Your task to perform on an android device: refresh tabs in the chrome app Image 0: 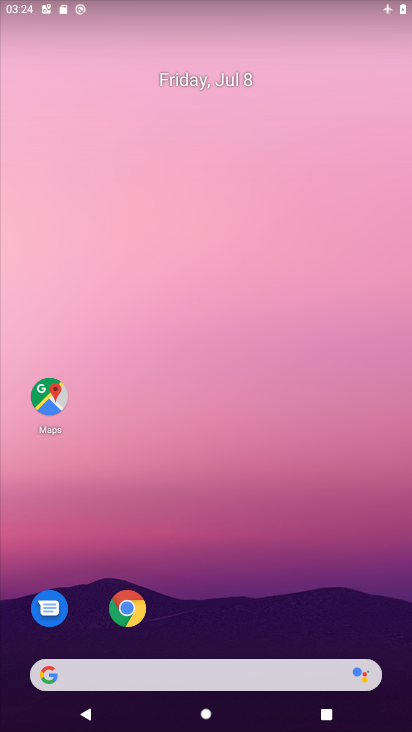
Step 0: drag from (267, 551) to (237, 184)
Your task to perform on an android device: refresh tabs in the chrome app Image 1: 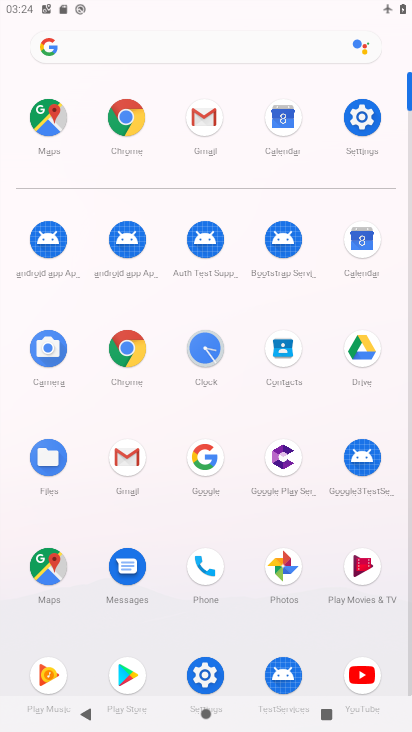
Step 1: click (127, 122)
Your task to perform on an android device: refresh tabs in the chrome app Image 2: 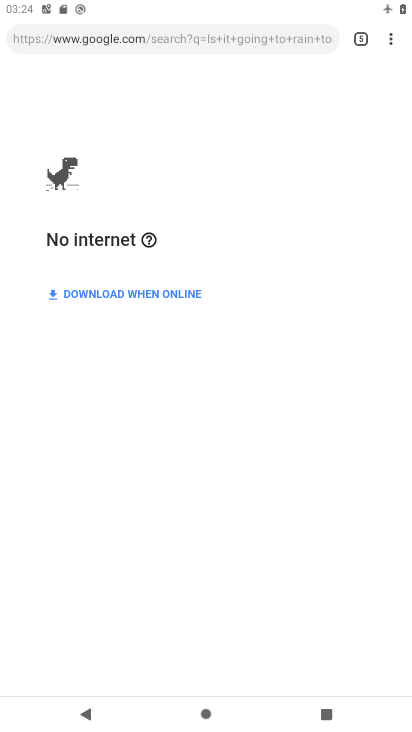
Step 2: click (381, 34)
Your task to perform on an android device: refresh tabs in the chrome app Image 3: 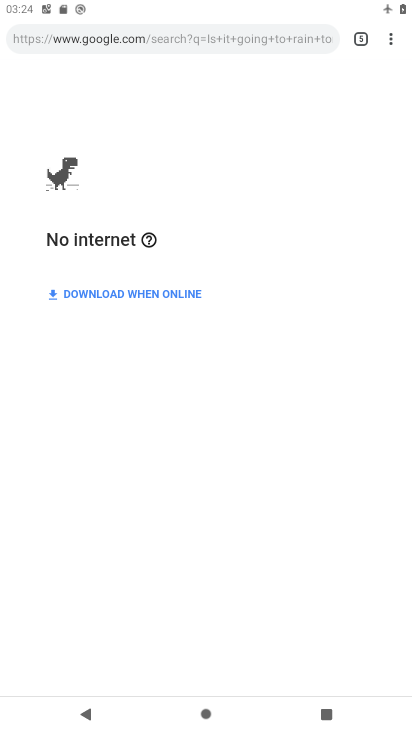
Step 3: click (397, 34)
Your task to perform on an android device: refresh tabs in the chrome app Image 4: 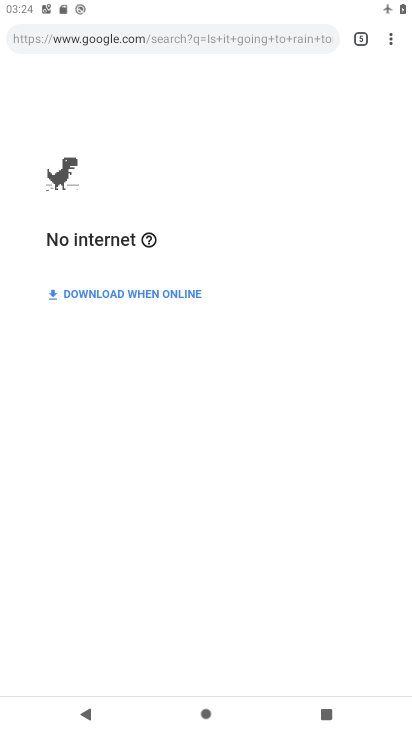
Step 4: click (389, 33)
Your task to perform on an android device: refresh tabs in the chrome app Image 5: 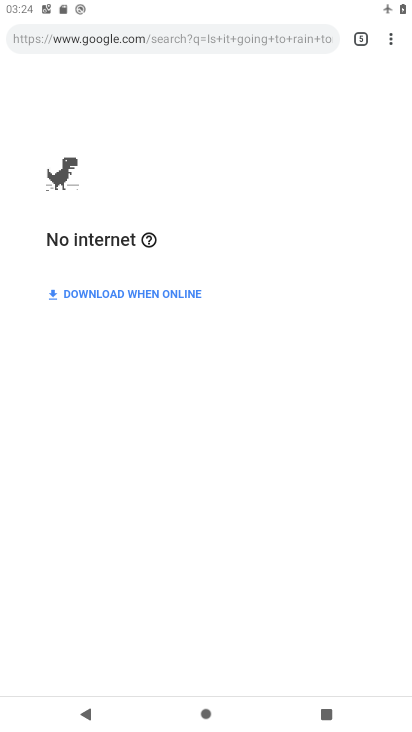
Step 5: click (379, 32)
Your task to perform on an android device: refresh tabs in the chrome app Image 6: 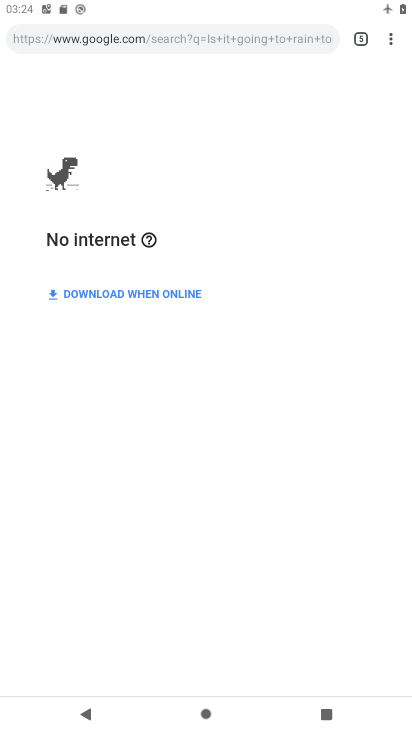
Step 6: click (379, 40)
Your task to perform on an android device: refresh tabs in the chrome app Image 7: 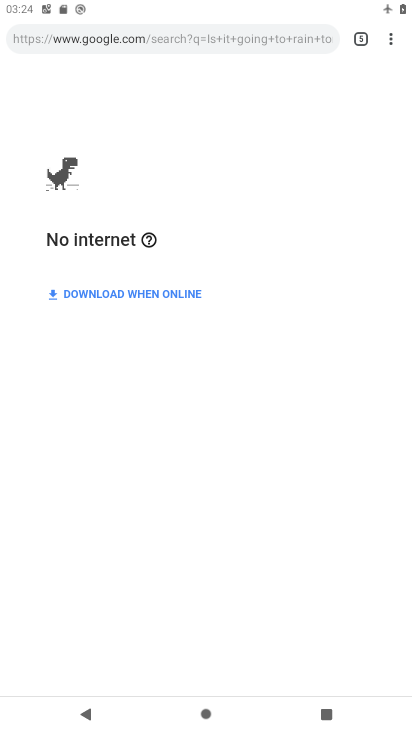
Step 7: click (387, 38)
Your task to perform on an android device: refresh tabs in the chrome app Image 8: 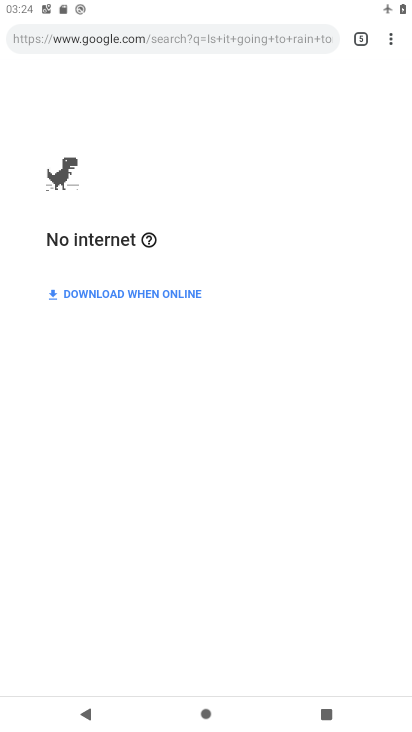
Step 8: click (387, 38)
Your task to perform on an android device: refresh tabs in the chrome app Image 9: 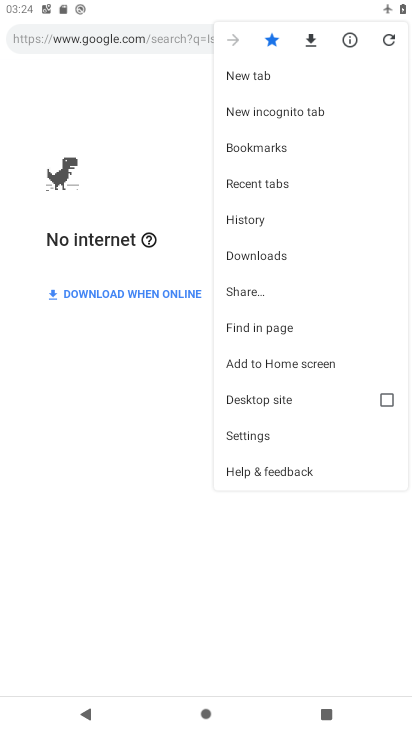
Step 9: click (392, 45)
Your task to perform on an android device: refresh tabs in the chrome app Image 10: 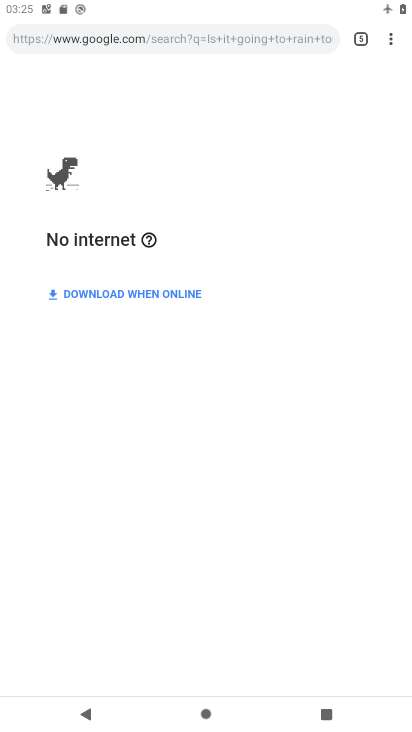
Step 10: task complete